Your task to perform on an android device: What's the weather? Image 0: 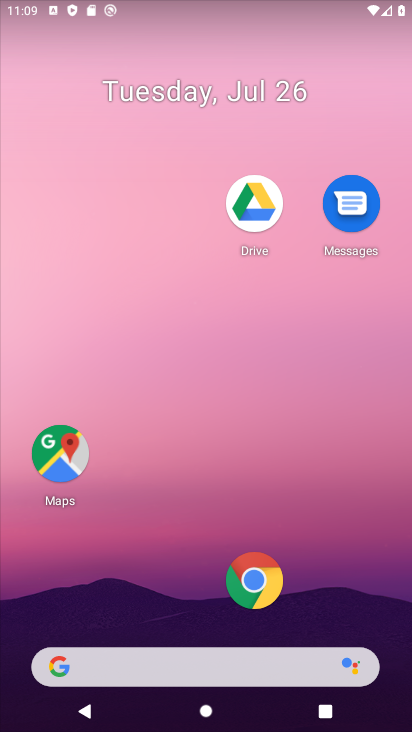
Step 0: click (163, 655)
Your task to perform on an android device: What's the weather? Image 1: 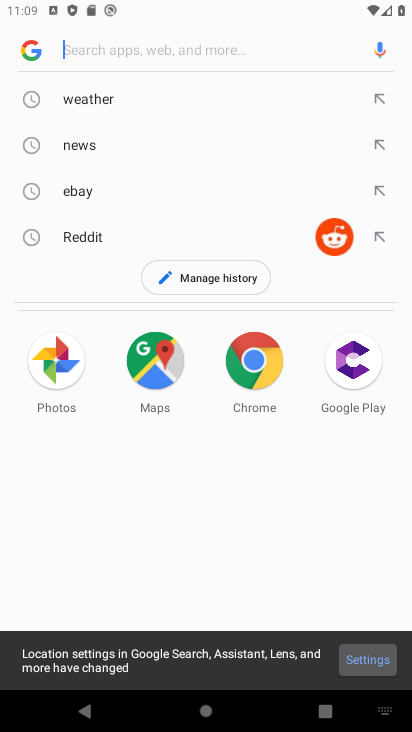
Step 1: click (171, 96)
Your task to perform on an android device: What's the weather? Image 2: 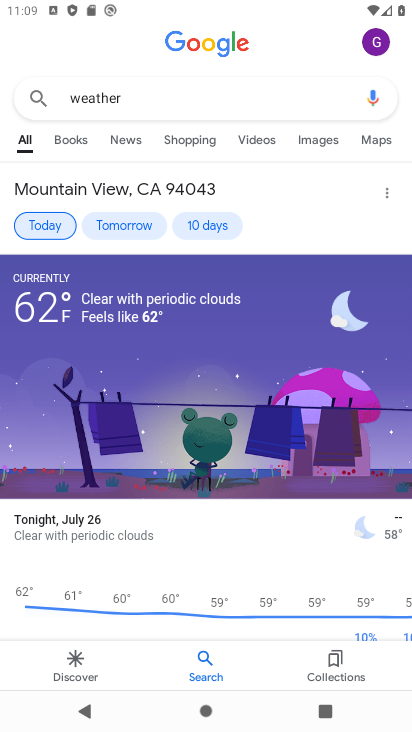
Step 2: task complete